Your task to perform on an android device: clear history in the chrome app Image 0: 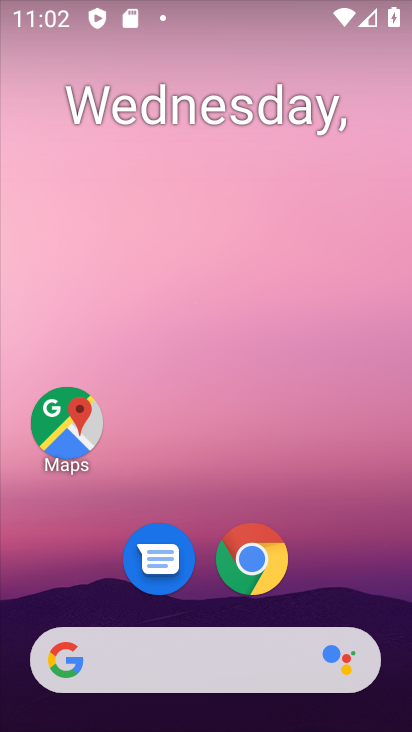
Step 0: click (268, 580)
Your task to perform on an android device: clear history in the chrome app Image 1: 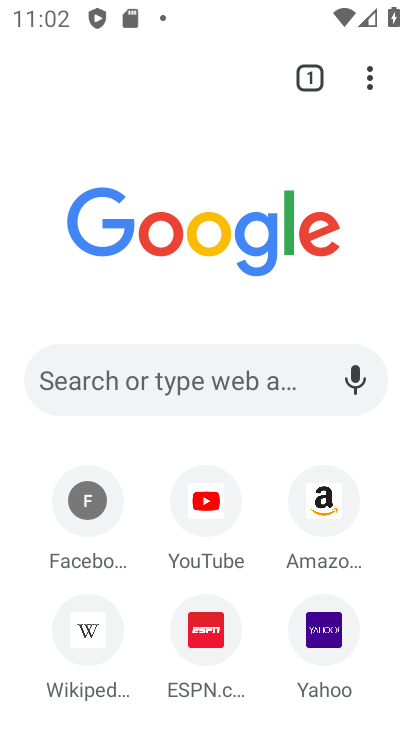
Step 1: click (373, 76)
Your task to perform on an android device: clear history in the chrome app Image 2: 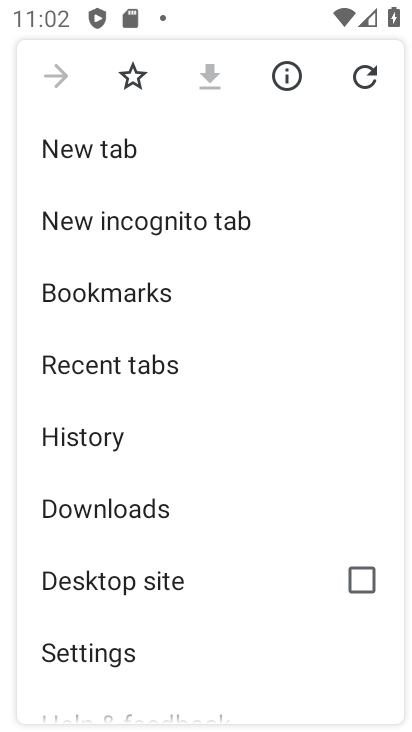
Step 2: click (153, 432)
Your task to perform on an android device: clear history in the chrome app Image 3: 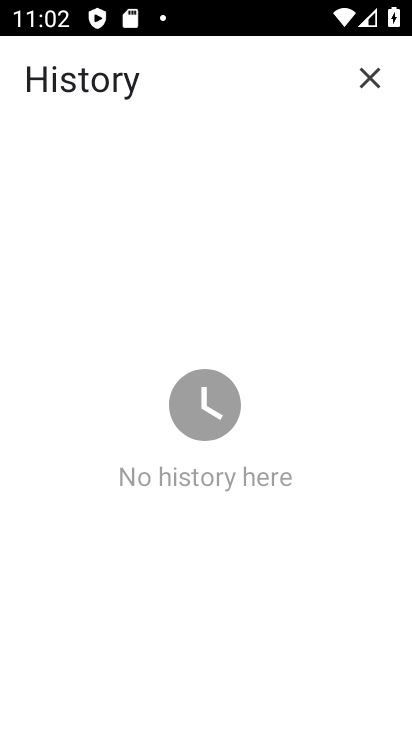
Step 3: task complete